Your task to perform on an android device: Add bose soundlink mini to the cart on amazon.com Image 0: 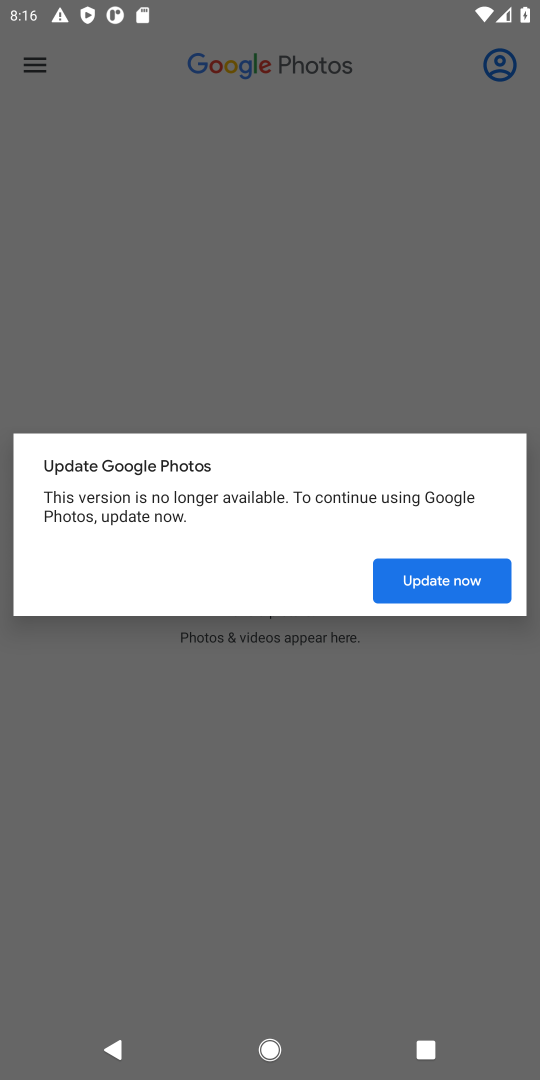
Step 0: press home button
Your task to perform on an android device: Add bose soundlink mini to the cart on amazon.com Image 1: 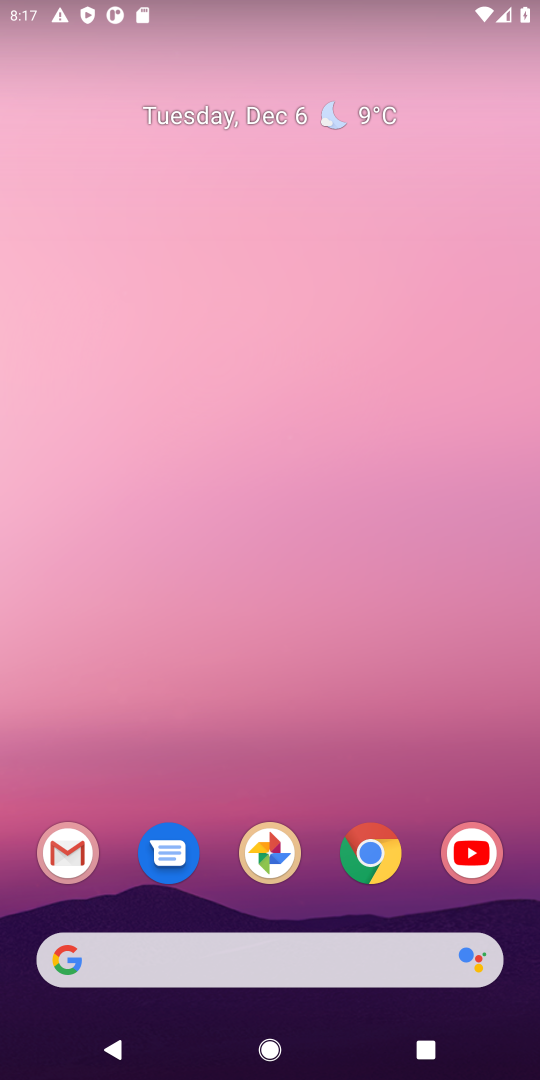
Step 1: click (363, 835)
Your task to perform on an android device: Add bose soundlink mini to the cart on amazon.com Image 2: 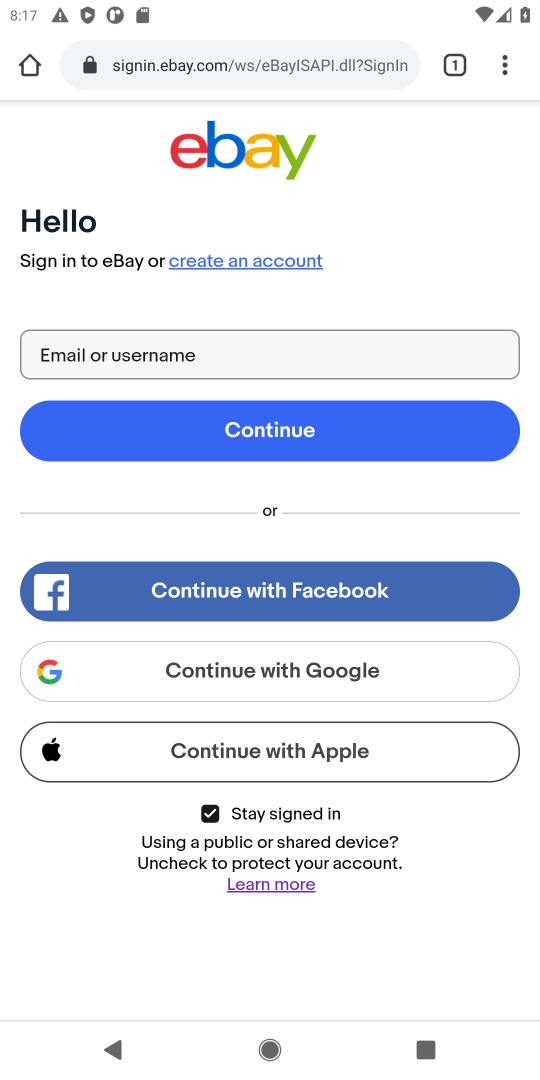
Step 2: click (297, 58)
Your task to perform on an android device: Add bose soundlink mini to the cart on amazon.com Image 3: 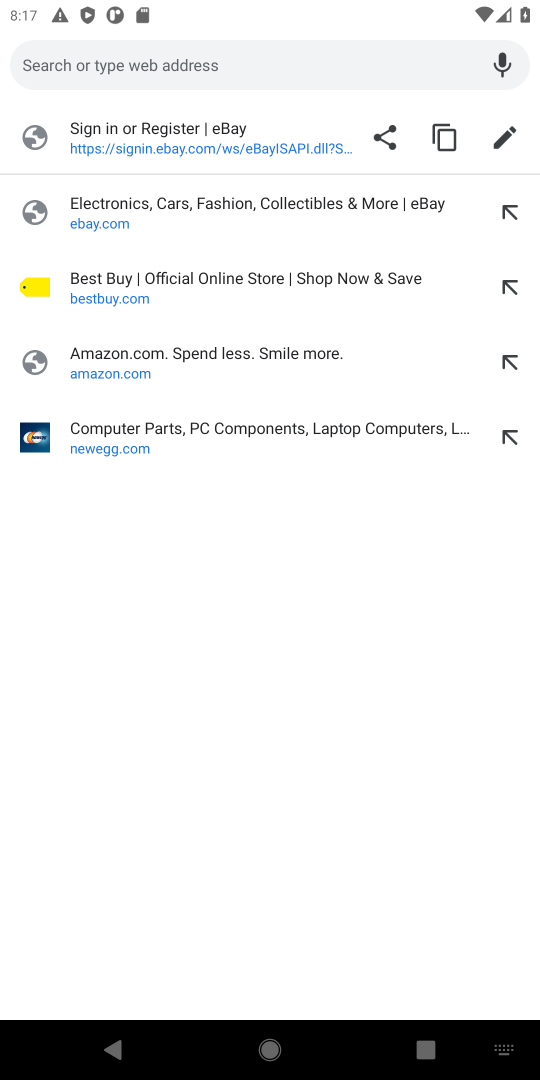
Step 3: click (256, 347)
Your task to perform on an android device: Add bose soundlink mini to the cart on amazon.com Image 4: 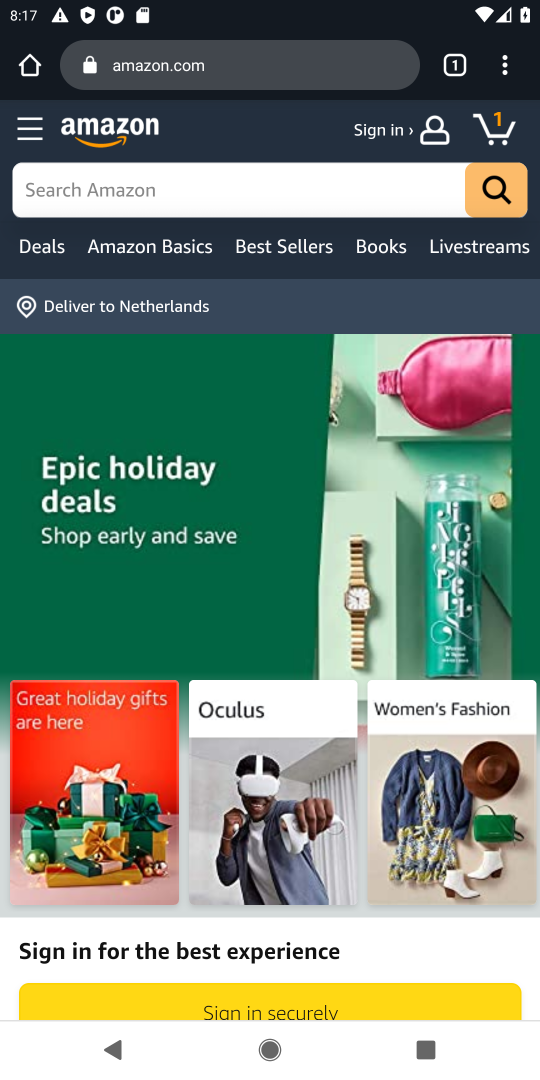
Step 4: click (361, 194)
Your task to perform on an android device: Add bose soundlink mini to the cart on amazon.com Image 5: 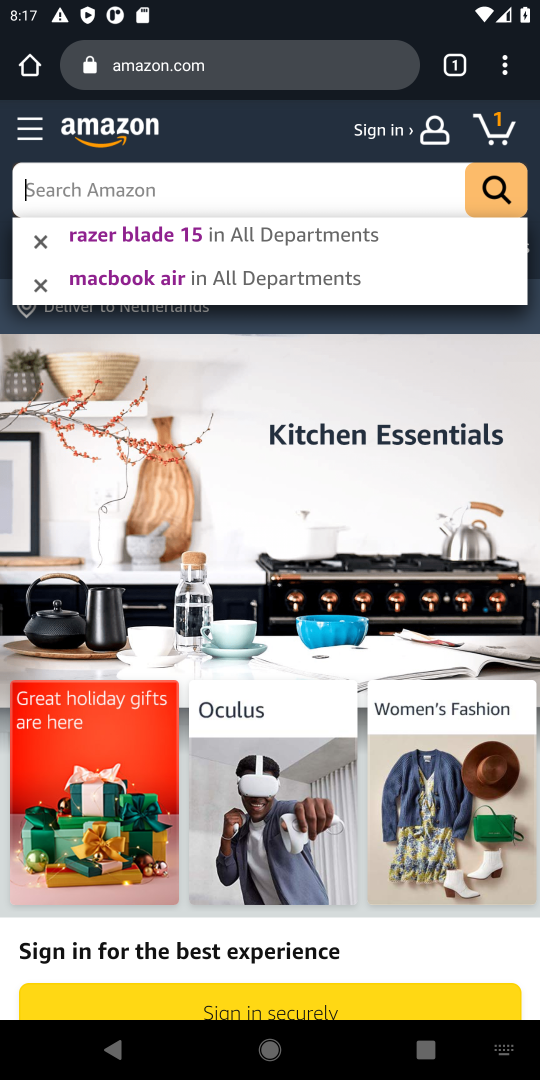
Step 5: type "bose soundlink mini"
Your task to perform on an android device: Add bose soundlink mini to the cart on amazon.com Image 6: 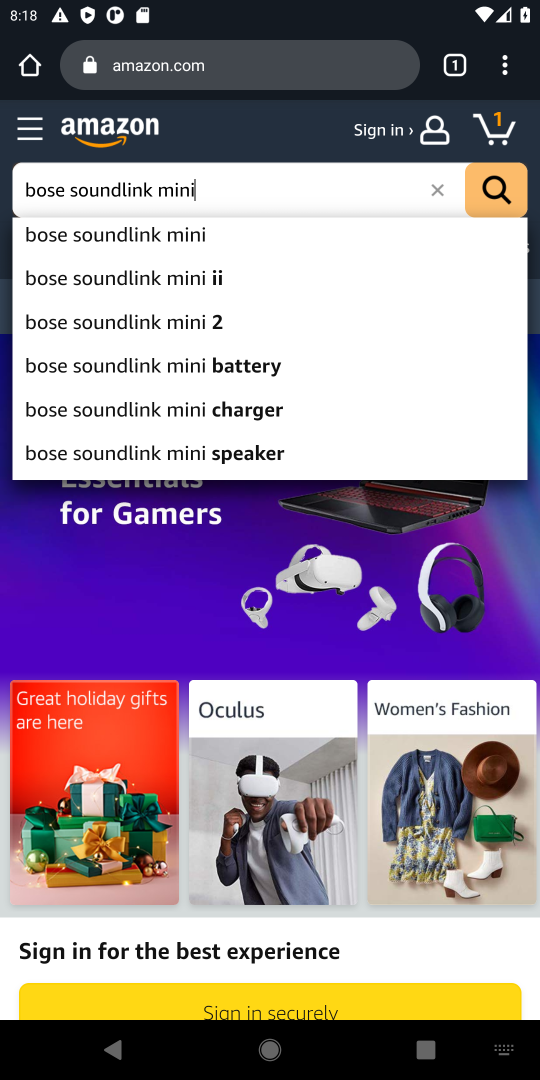
Step 6: click (119, 232)
Your task to perform on an android device: Add bose soundlink mini to the cart on amazon.com Image 7: 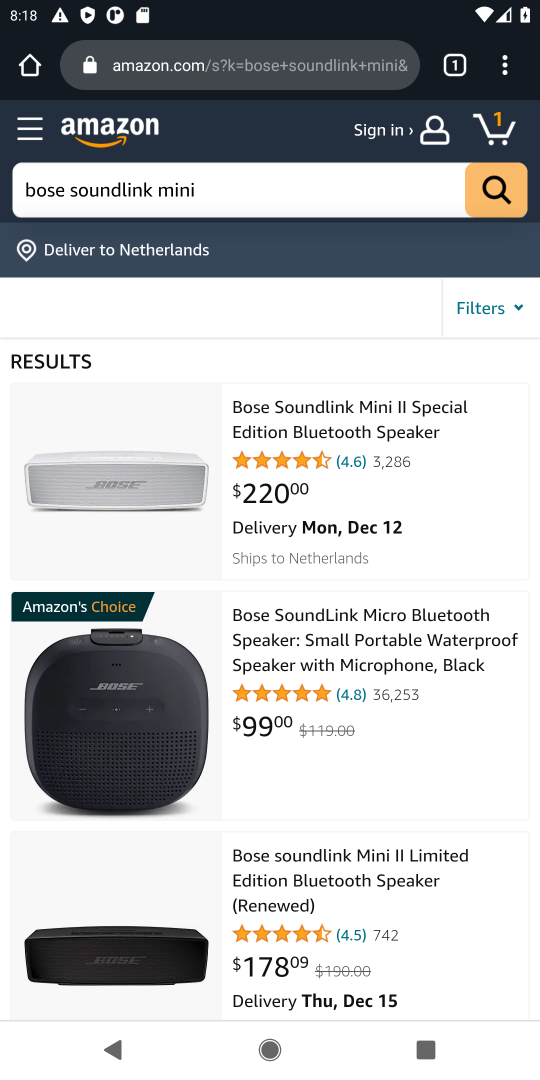
Step 7: click (150, 486)
Your task to perform on an android device: Add bose soundlink mini to the cart on amazon.com Image 8: 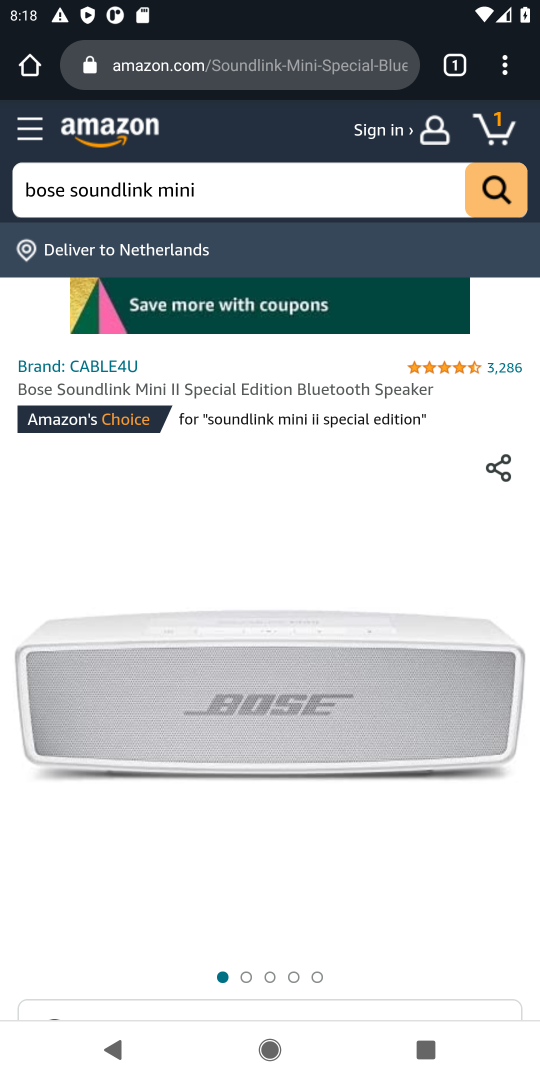
Step 8: drag from (337, 872) to (348, 200)
Your task to perform on an android device: Add bose soundlink mini to the cart on amazon.com Image 9: 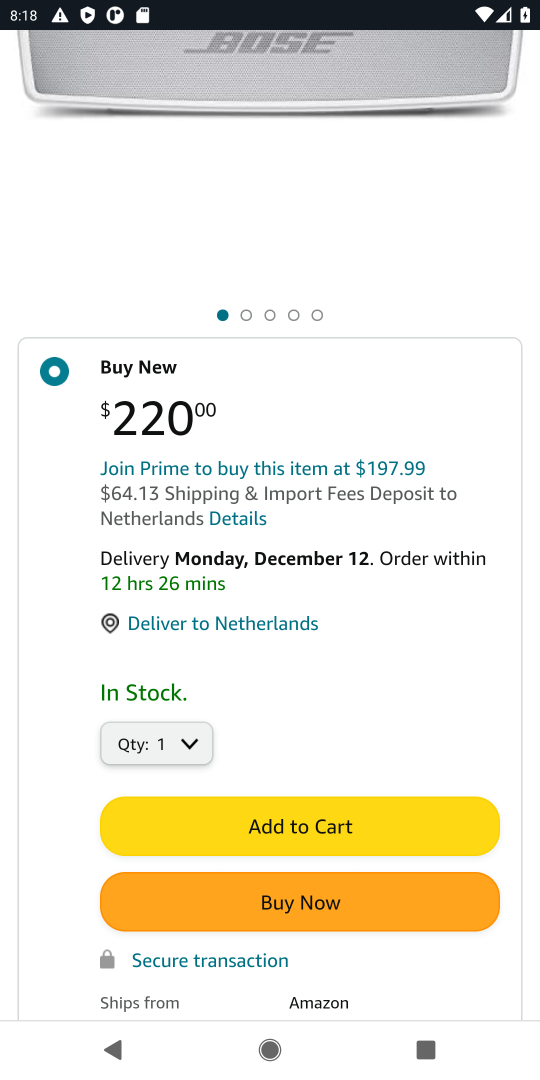
Step 9: click (276, 837)
Your task to perform on an android device: Add bose soundlink mini to the cart on amazon.com Image 10: 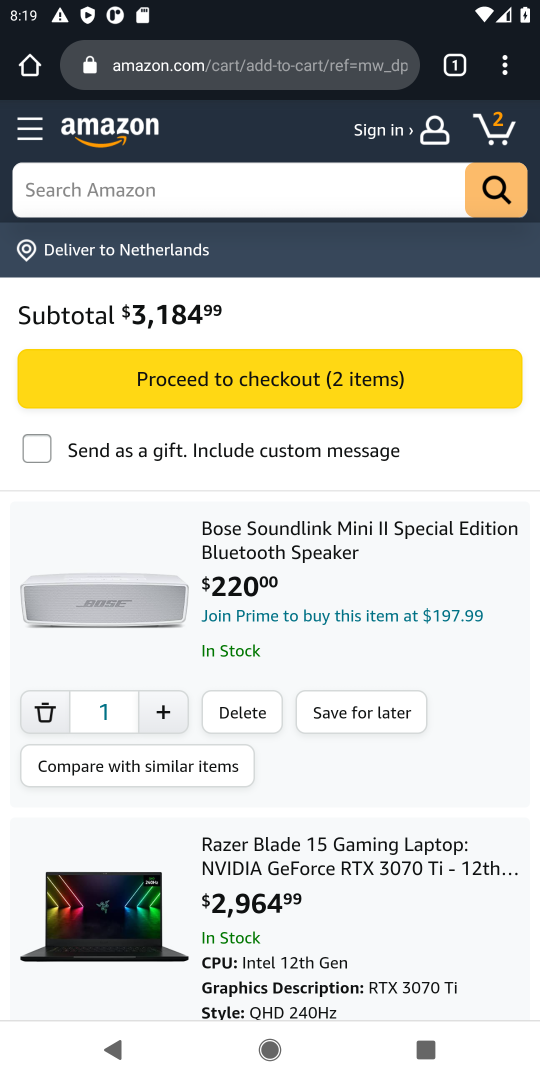
Step 10: task complete